Your task to perform on an android device: change the clock style Image 0: 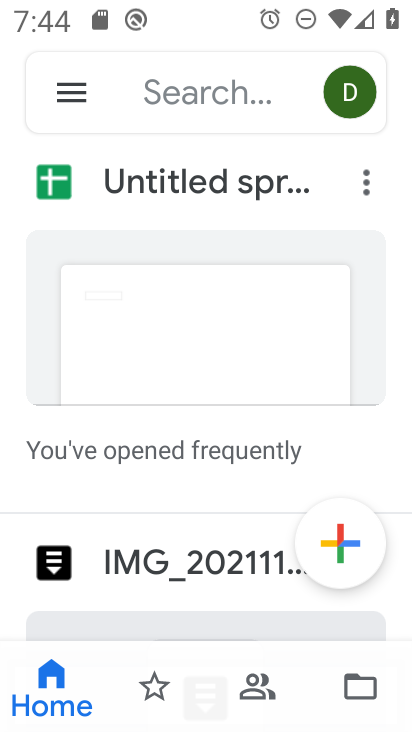
Step 0: press home button
Your task to perform on an android device: change the clock style Image 1: 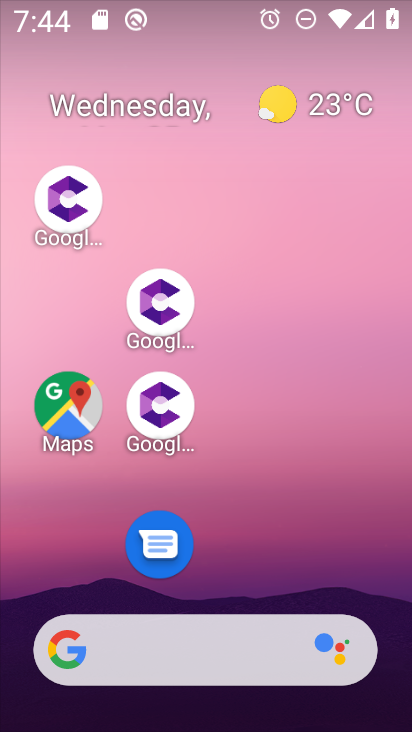
Step 1: drag from (283, 535) to (204, 106)
Your task to perform on an android device: change the clock style Image 2: 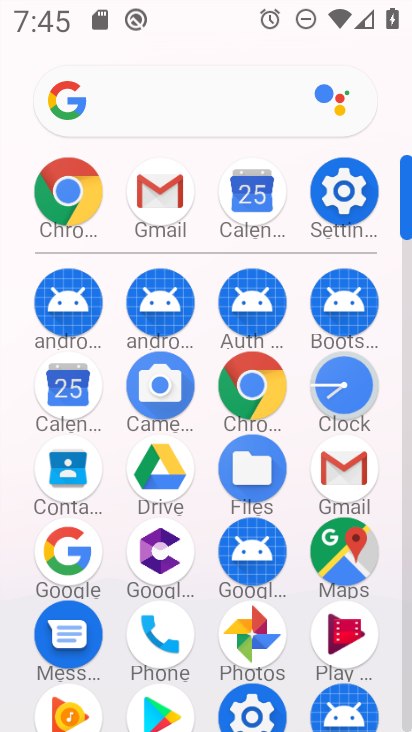
Step 2: click (329, 377)
Your task to perform on an android device: change the clock style Image 3: 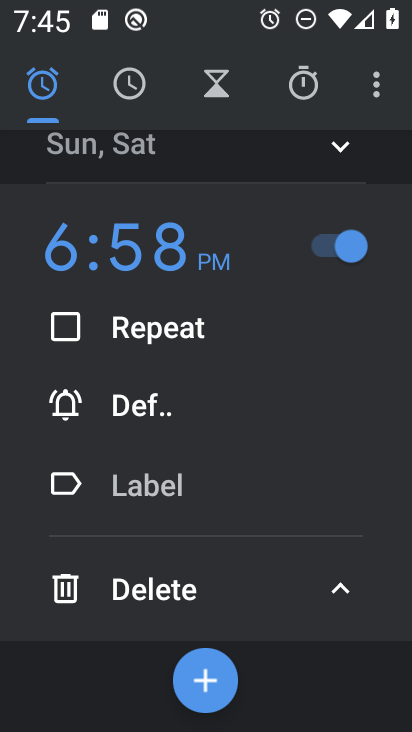
Step 3: click (378, 87)
Your task to perform on an android device: change the clock style Image 4: 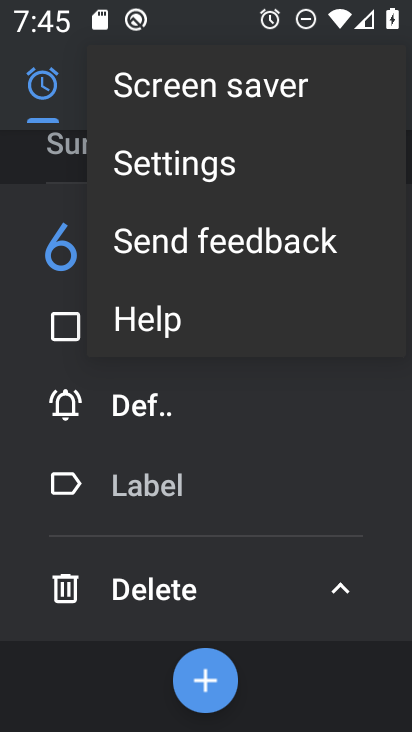
Step 4: click (198, 162)
Your task to perform on an android device: change the clock style Image 5: 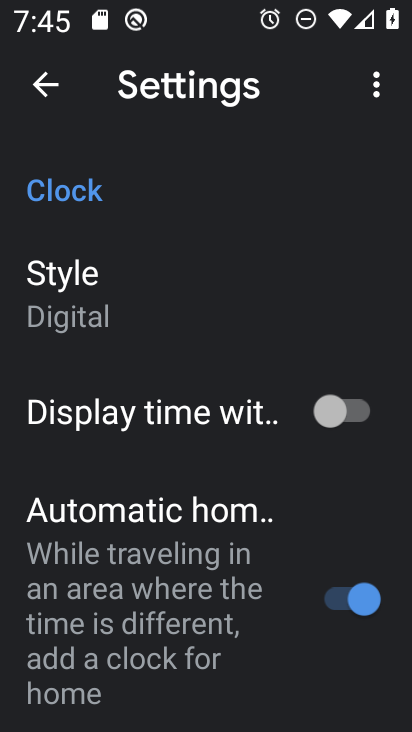
Step 5: click (67, 273)
Your task to perform on an android device: change the clock style Image 6: 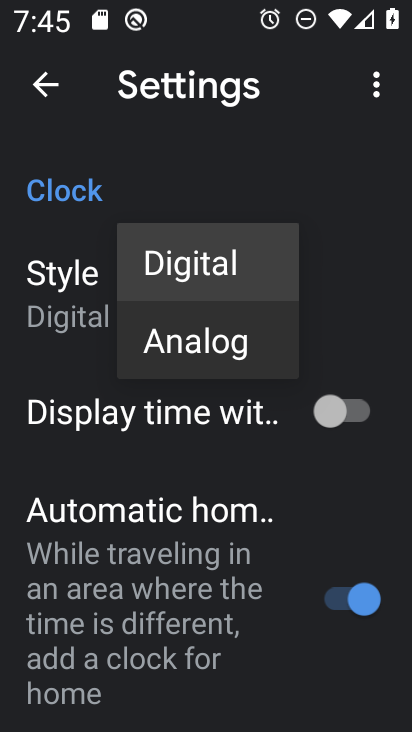
Step 6: click (156, 337)
Your task to perform on an android device: change the clock style Image 7: 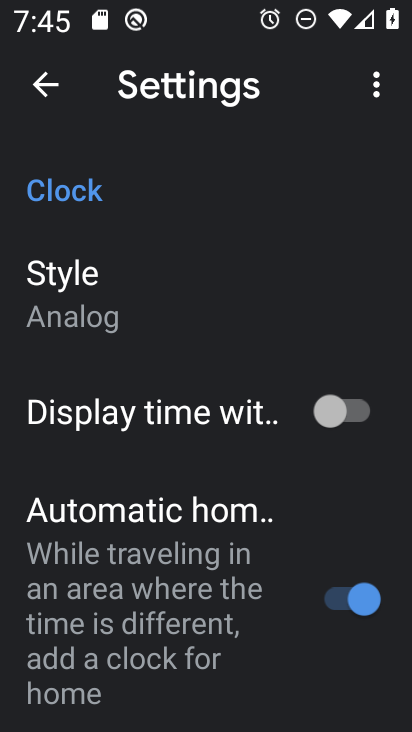
Step 7: task complete